Your task to perform on an android device: Go to display settings Image 0: 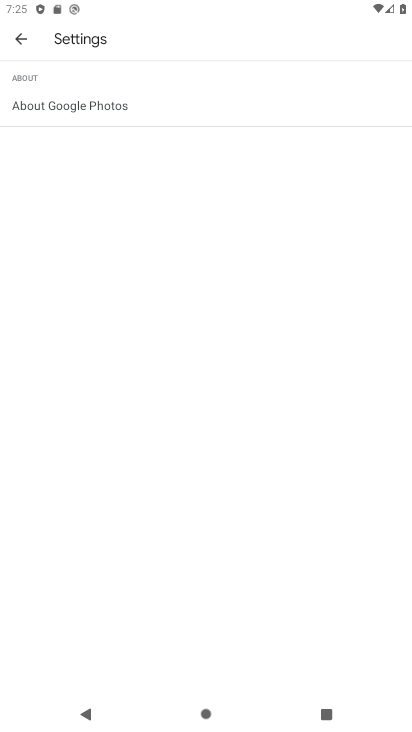
Step 0: press home button
Your task to perform on an android device: Go to display settings Image 1: 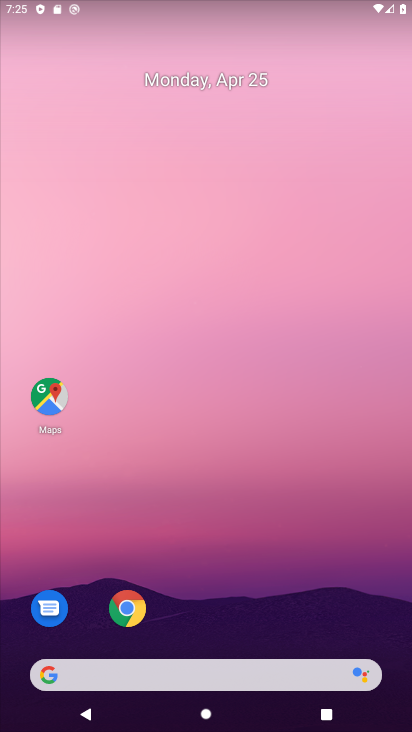
Step 1: drag from (261, 610) to (312, 35)
Your task to perform on an android device: Go to display settings Image 2: 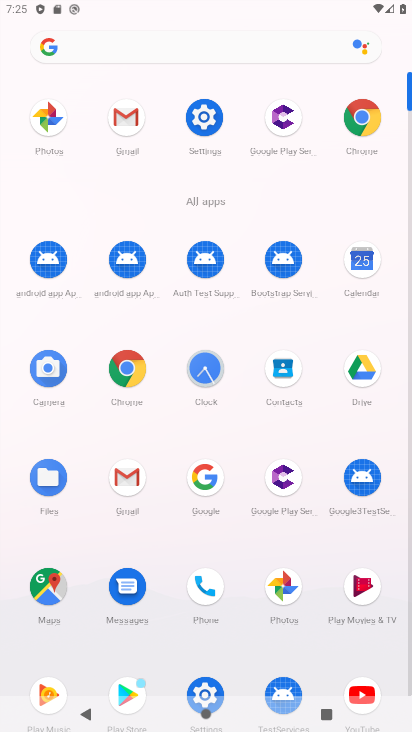
Step 2: click (201, 117)
Your task to perform on an android device: Go to display settings Image 3: 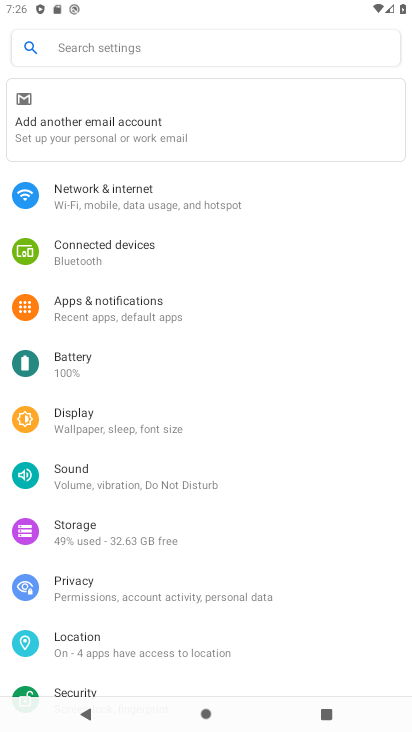
Step 3: click (115, 427)
Your task to perform on an android device: Go to display settings Image 4: 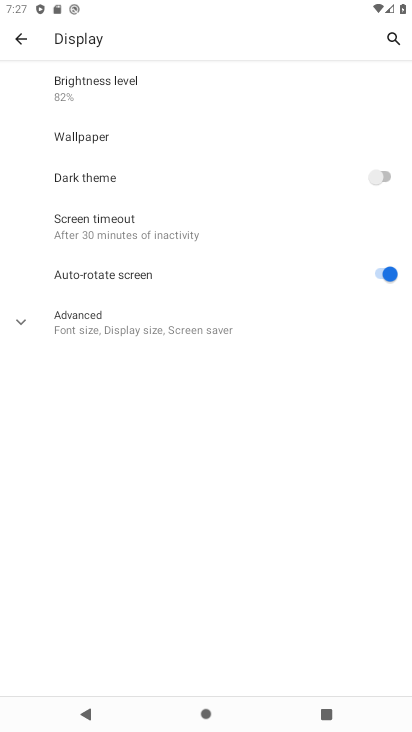
Step 4: task complete